Your task to perform on an android device: turn on bluetooth scan Image 0: 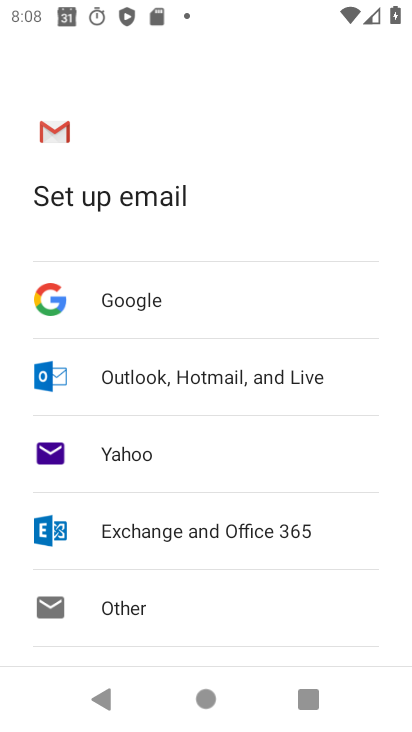
Step 0: press home button
Your task to perform on an android device: turn on bluetooth scan Image 1: 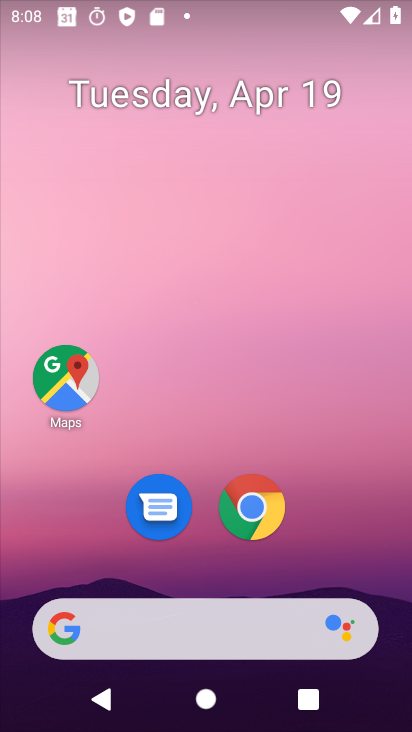
Step 1: drag from (330, 458) to (248, 150)
Your task to perform on an android device: turn on bluetooth scan Image 2: 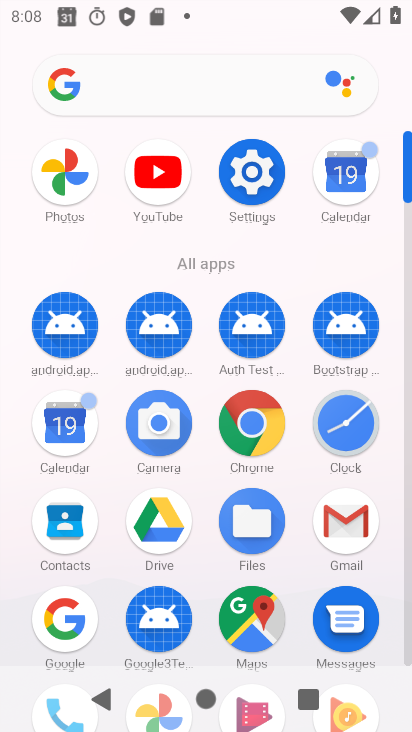
Step 2: click (251, 169)
Your task to perform on an android device: turn on bluetooth scan Image 3: 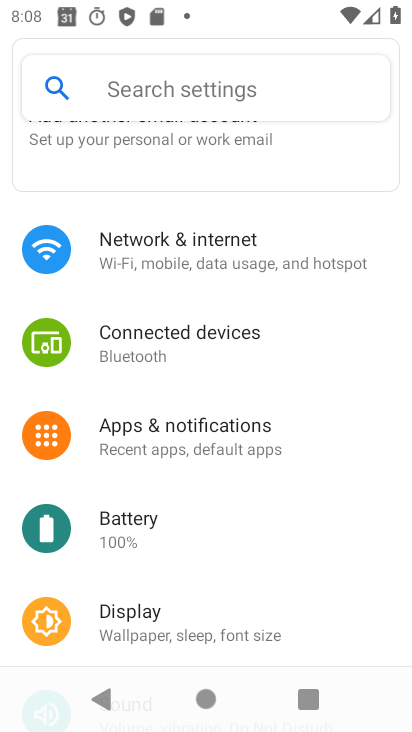
Step 3: drag from (195, 548) to (209, 213)
Your task to perform on an android device: turn on bluetooth scan Image 4: 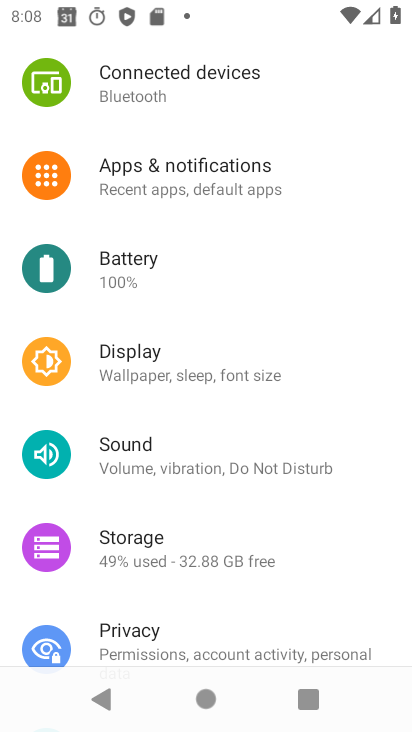
Step 4: drag from (296, 595) to (312, 253)
Your task to perform on an android device: turn on bluetooth scan Image 5: 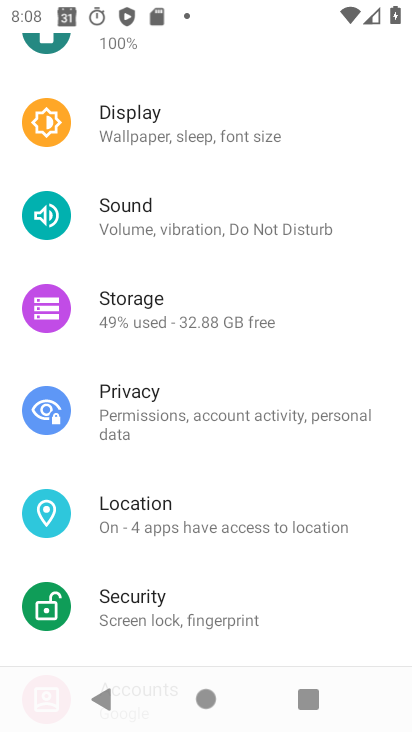
Step 5: click (56, 512)
Your task to perform on an android device: turn on bluetooth scan Image 6: 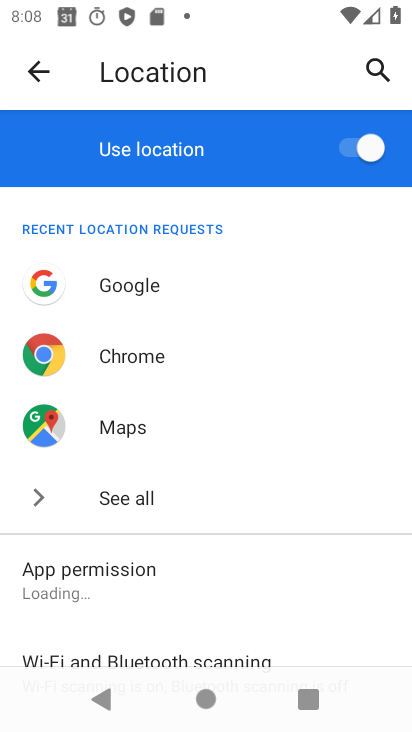
Step 6: drag from (187, 658) to (204, 450)
Your task to perform on an android device: turn on bluetooth scan Image 7: 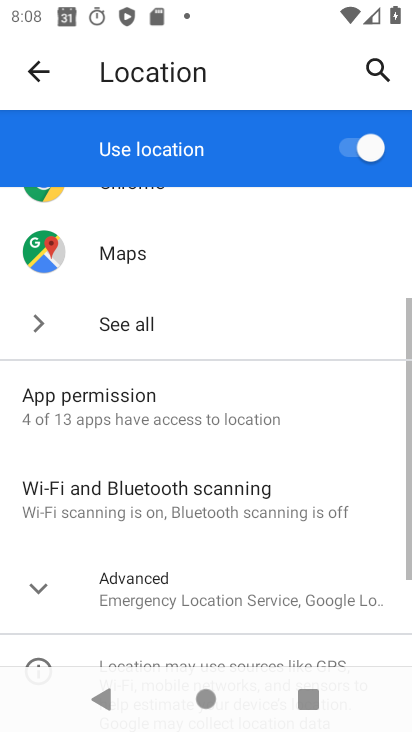
Step 7: click (162, 498)
Your task to perform on an android device: turn on bluetooth scan Image 8: 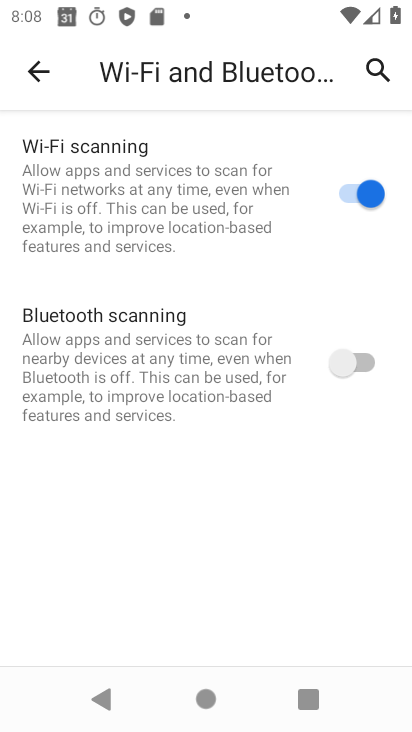
Step 8: click (359, 363)
Your task to perform on an android device: turn on bluetooth scan Image 9: 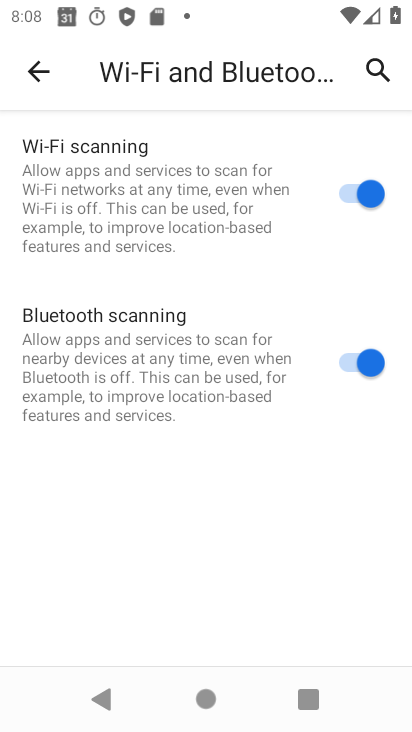
Step 9: task complete